Your task to perform on an android device: Open Google Chrome and click the shortcut for Amazon.com Image 0: 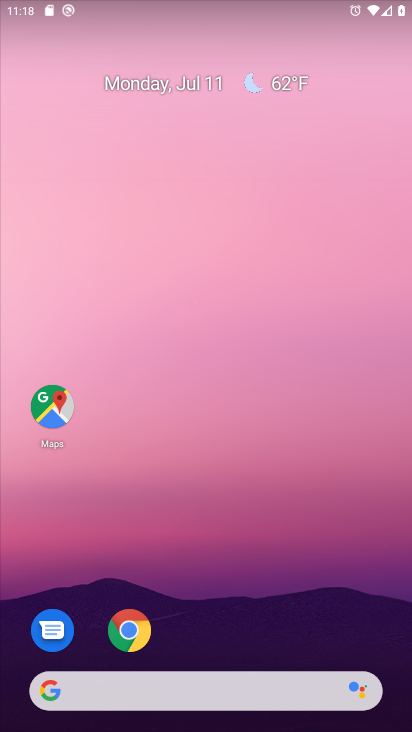
Step 0: drag from (218, 633) to (268, 162)
Your task to perform on an android device: Open Google Chrome and click the shortcut for Amazon.com Image 1: 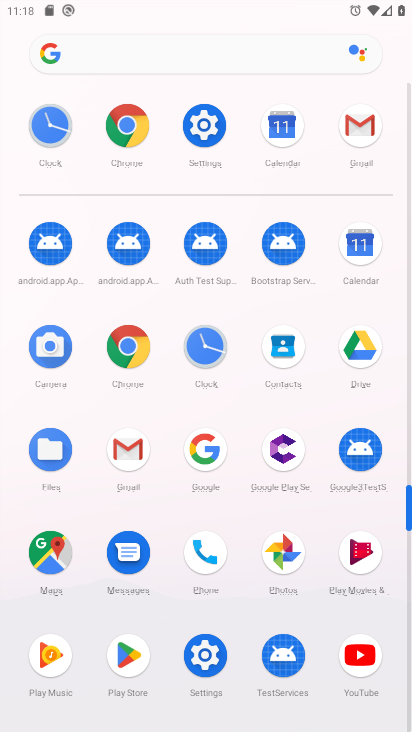
Step 1: click (137, 128)
Your task to perform on an android device: Open Google Chrome and click the shortcut for Amazon.com Image 2: 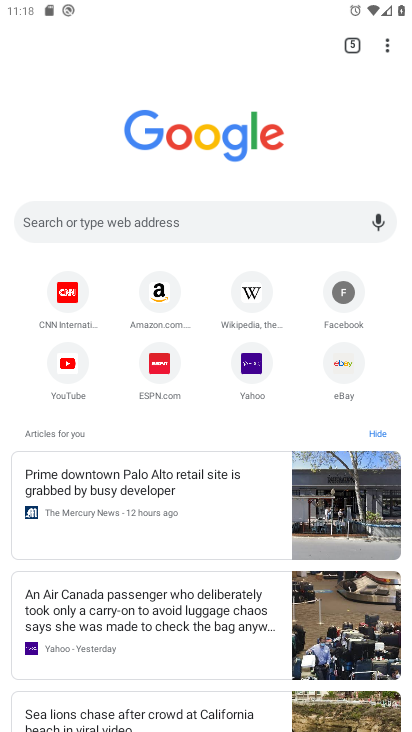
Step 2: click (152, 290)
Your task to perform on an android device: Open Google Chrome and click the shortcut for Amazon.com Image 3: 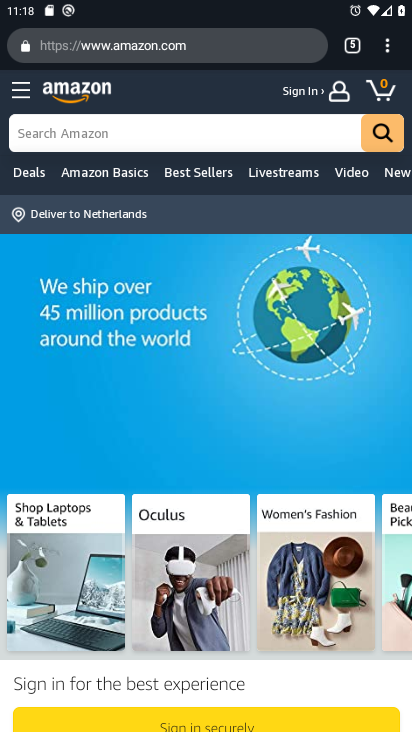
Step 3: task complete